Your task to perform on an android device: Go to Google maps Image 0: 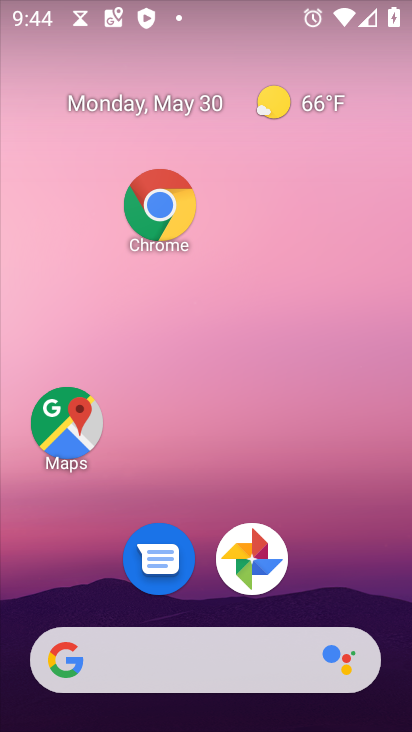
Step 0: drag from (228, 444) to (137, 78)
Your task to perform on an android device: Go to Google maps Image 1: 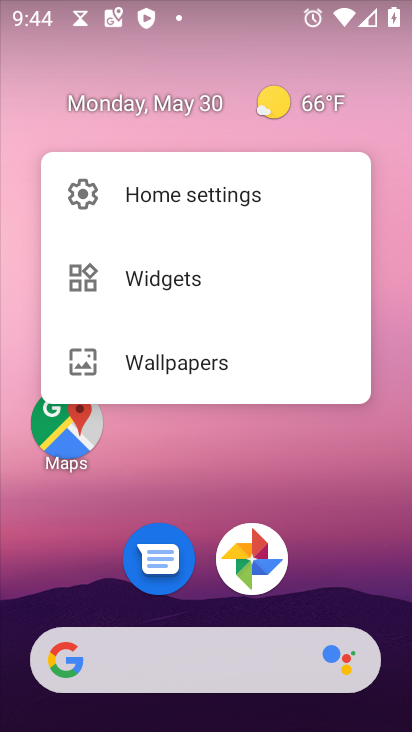
Step 1: drag from (359, 588) to (261, 195)
Your task to perform on an android device: Go to Google maps Image 2: 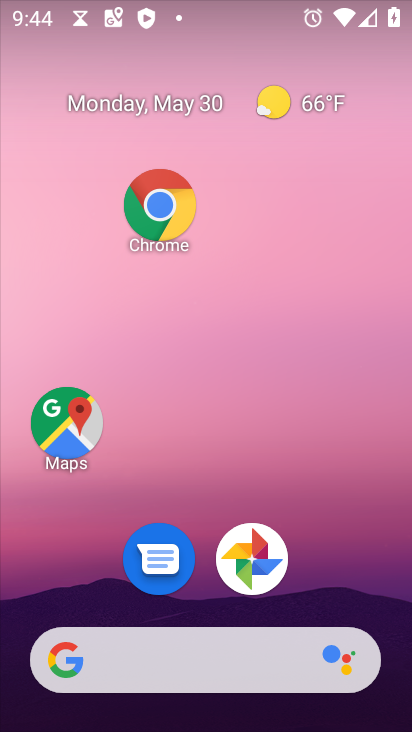
Step 2: click (61, 98)
Your task to perform on an android device: Go to Google maps Image 3: 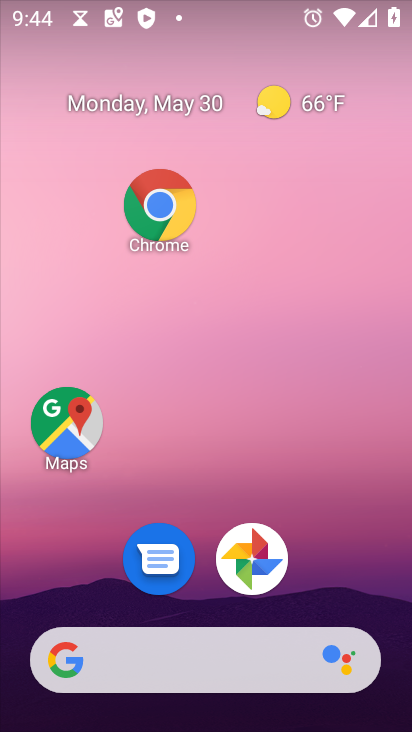
Step 3: drag from (314, 598) to (206, 42)
Your task to perform on an android device: Go to Google maps Image 4: 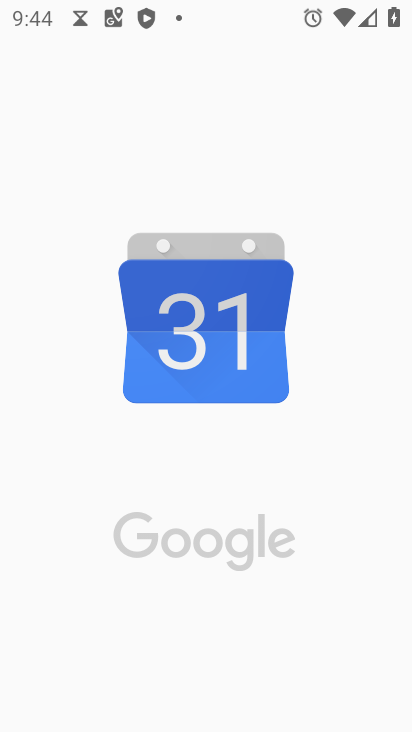
Step 4: drag from (267, 461) to (192, 31)
Your task to perform on an android device: Go to Google maps Image 5: 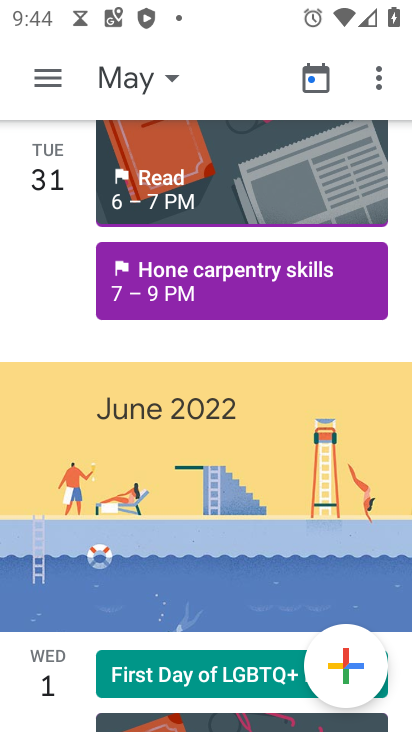
Step 5: press back button
Your task to perform on an android device: Go to Google maps Image 6: 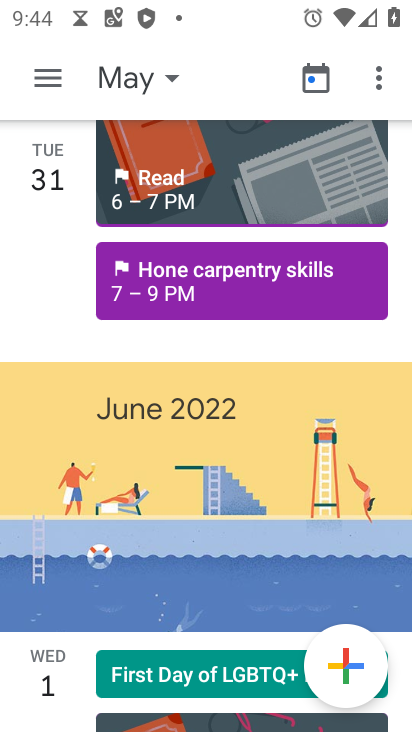
Step 6: press back button
Your task to perform on an android device: Go to Google maps Image 7: 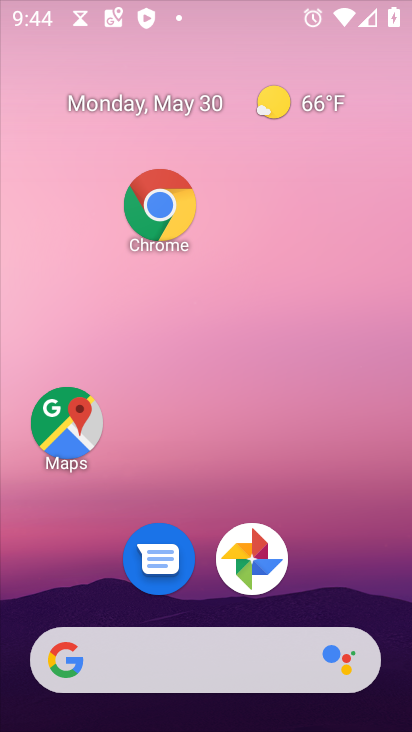
Step 7: press back button
Your task to perform on an android device: Go to Google maps Image 8: 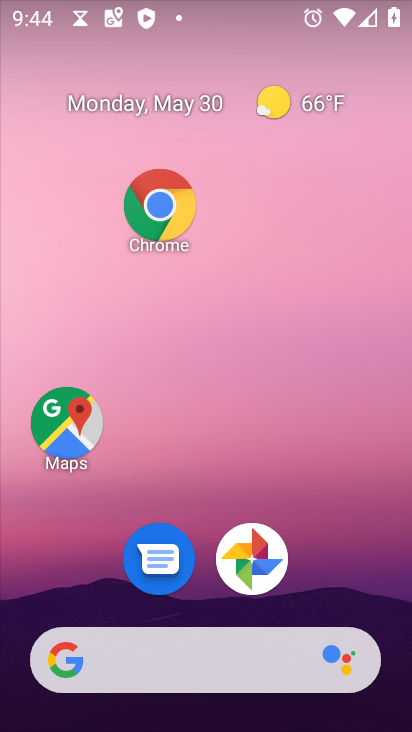
Step 8: drag from (281, 655) to (118, 0)
Your task to perform on an android device: Go to Google maps Image 9: 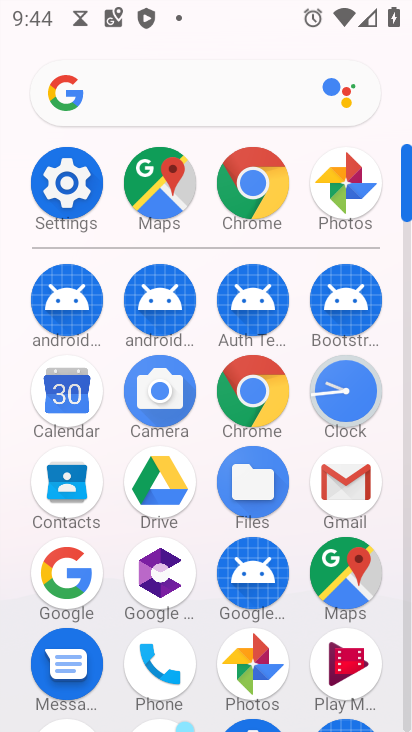
Step 9: click (336, 573)
Your task to perform on an android device: Go to Google maps Image 10: 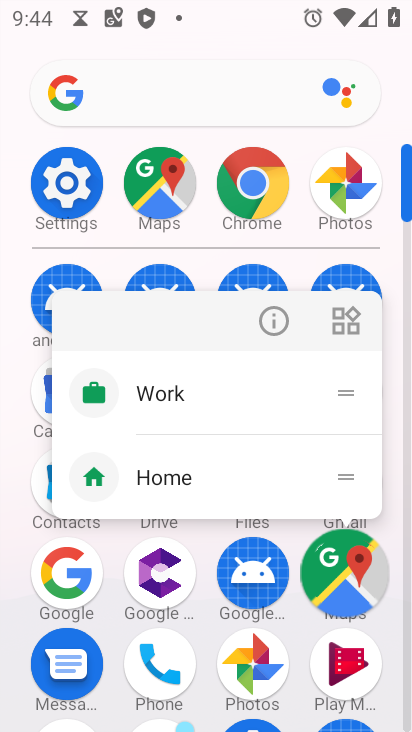
Step 10: click (338, 572)
Your task to perform on an android device: Go to Google maps Image 11: 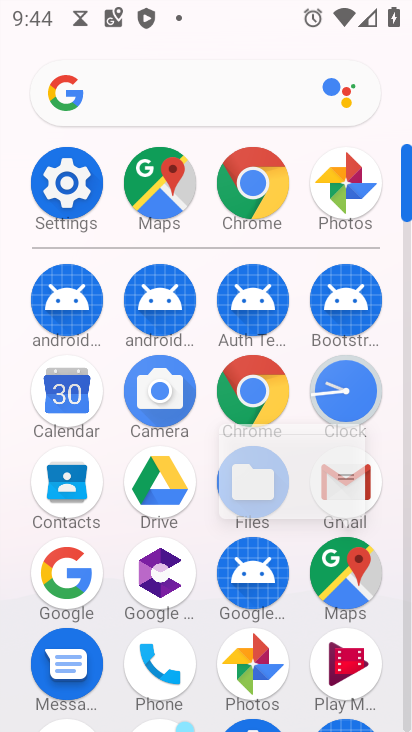
Step 11: click (338, 571)
Your task to perform on an android device: Go to Google maps Image 12: 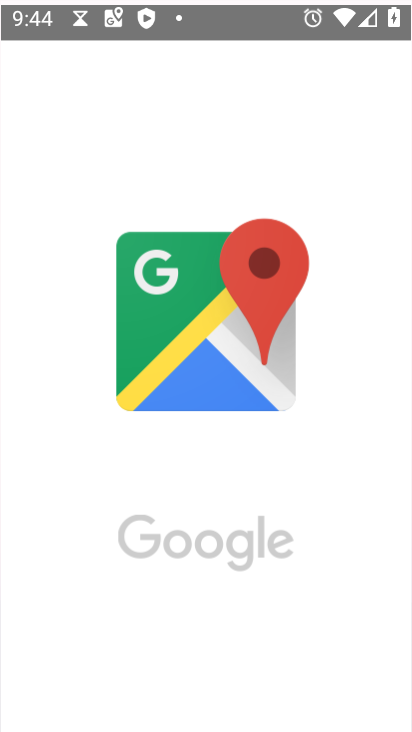
Step 12: click (339, 570)
Your task to perform on an android device: Go to Google maps Image 13: 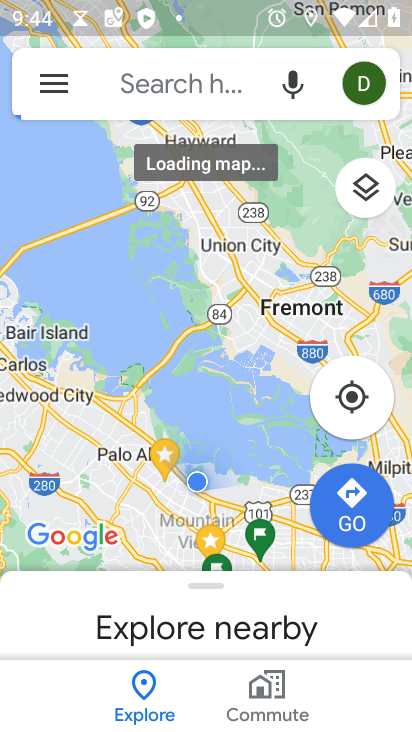
Step 13: task complete